Your task to perform on an android device: snooze an email in the gmail app Image 0: 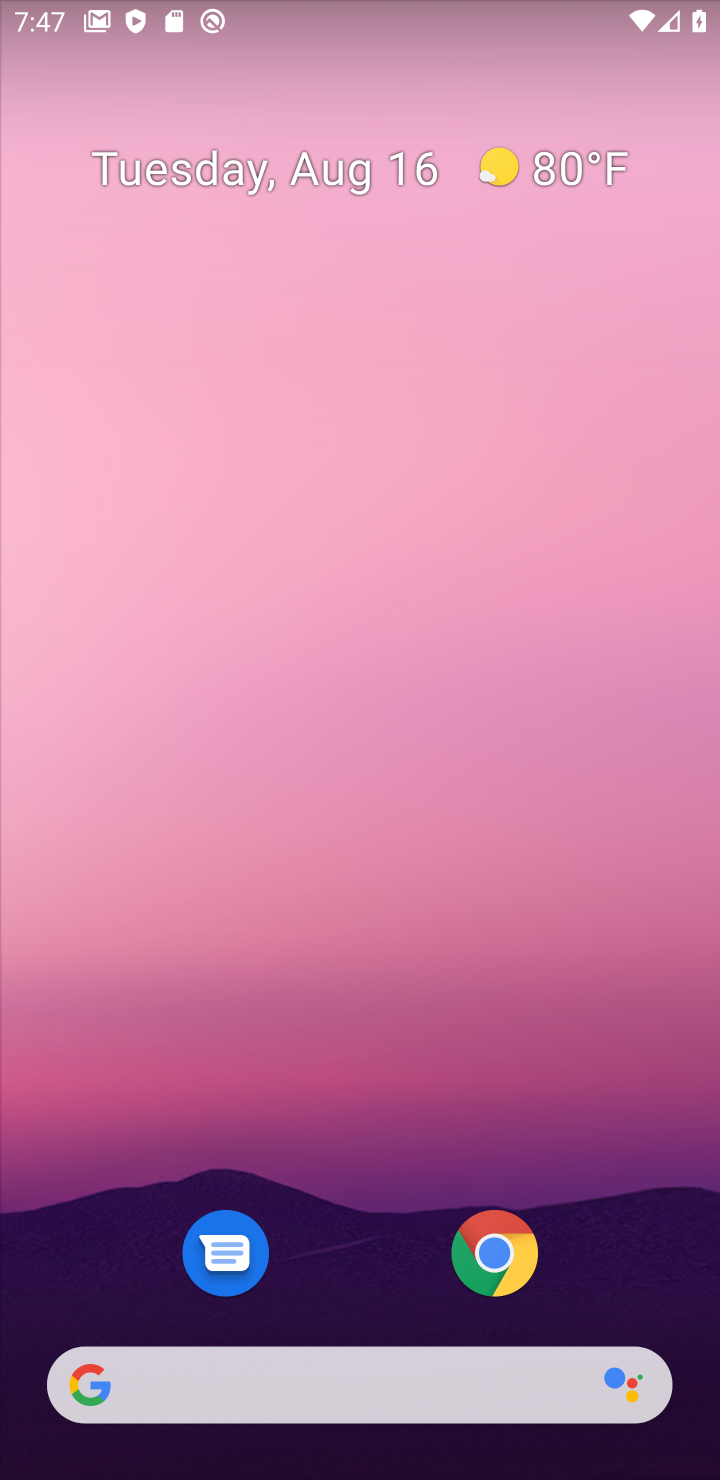
Step 0: drag from (300, 1378) to (478, 297)
Your task to perform on an android device: snooze an email in the gmail app Image 1: 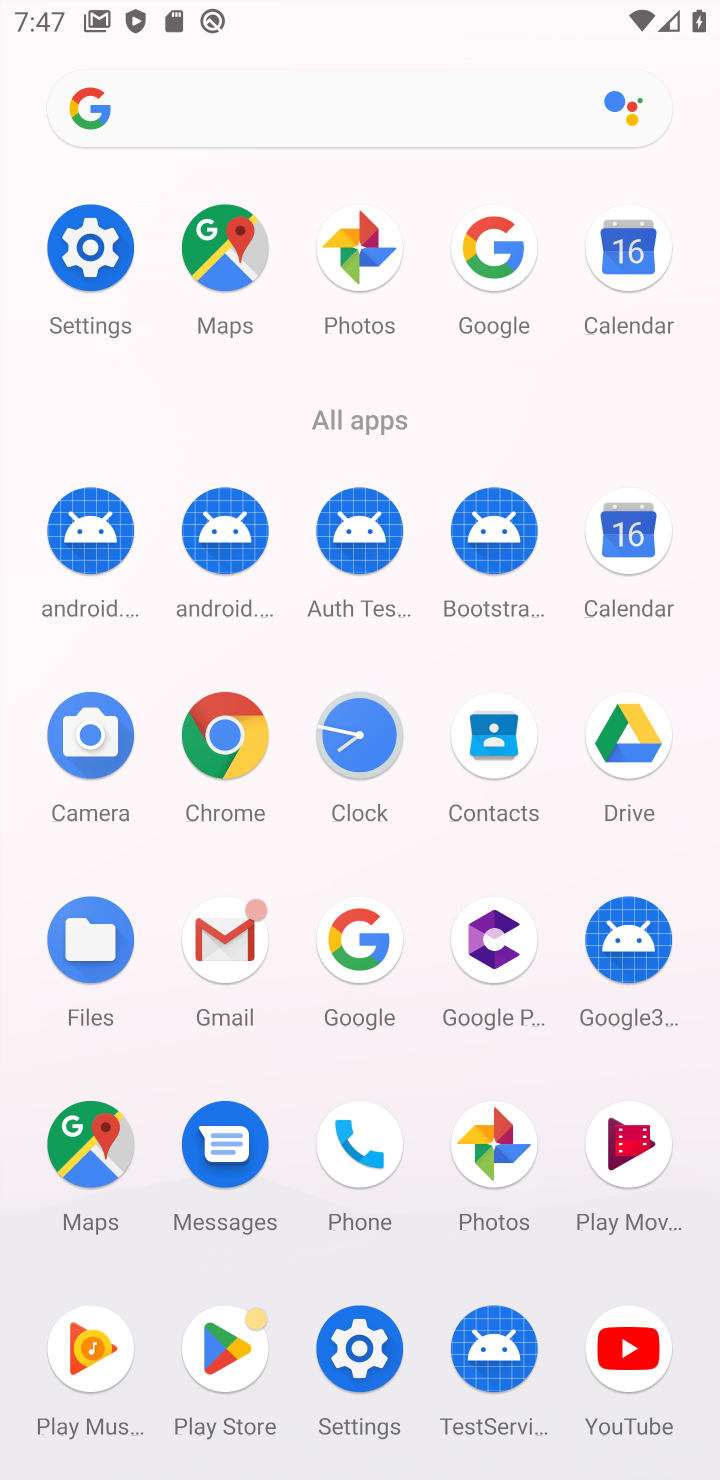
Step 1: click (223, 943)
Your task to perform on an android device: snooze an email in the gmail app Image 2: 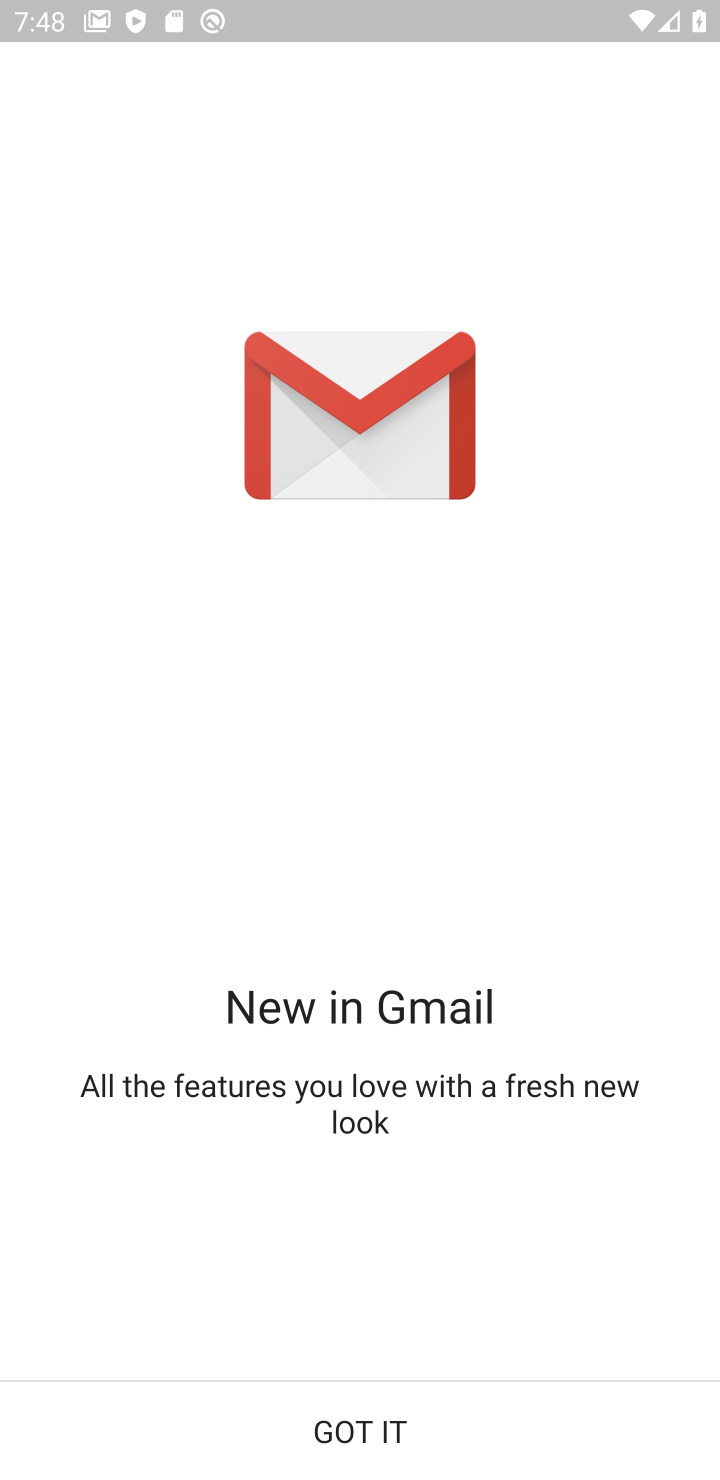
Step 2: click (375, 1431)
Your task to perform on an android device: snooze an email in the gmail app Image 3: 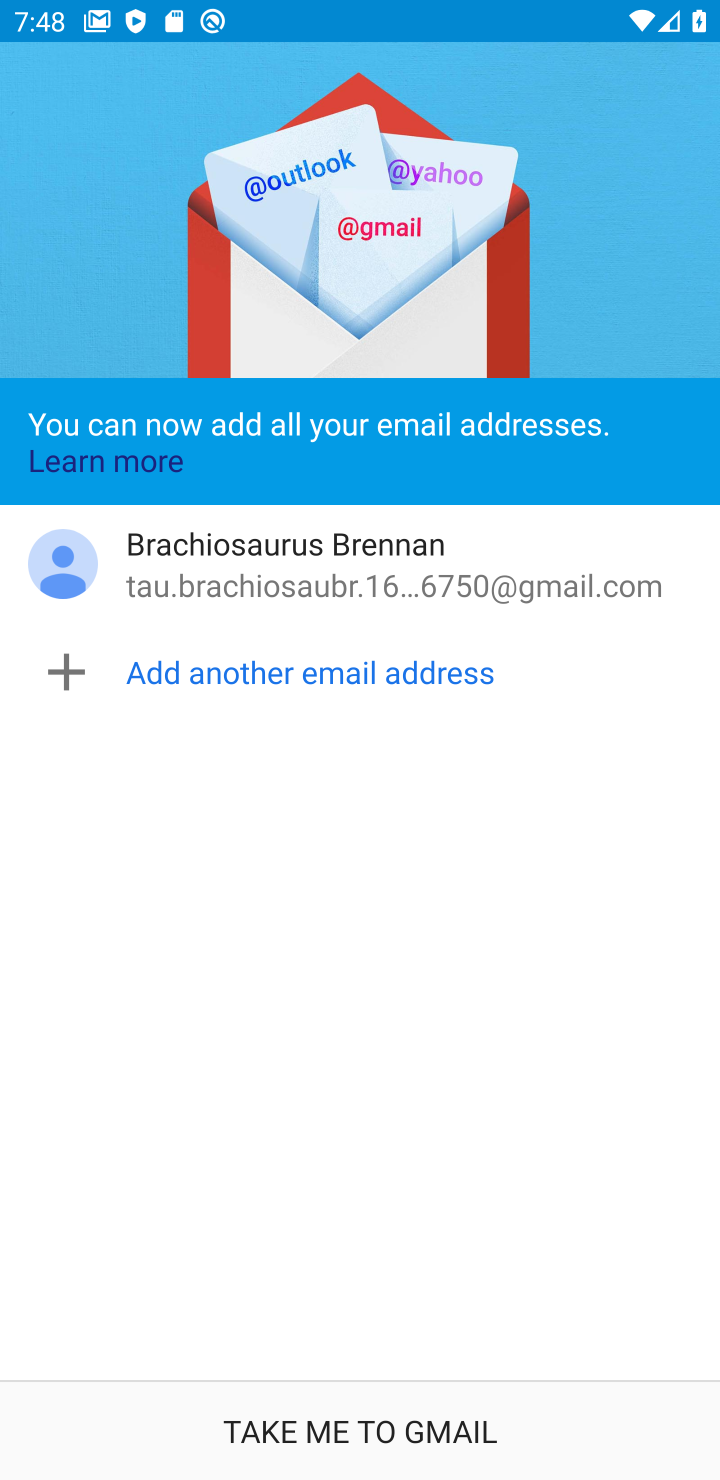
Step 3: click (389, 1424)
Your task to perform on an android device: snooze an email in the gmail app Image 4: 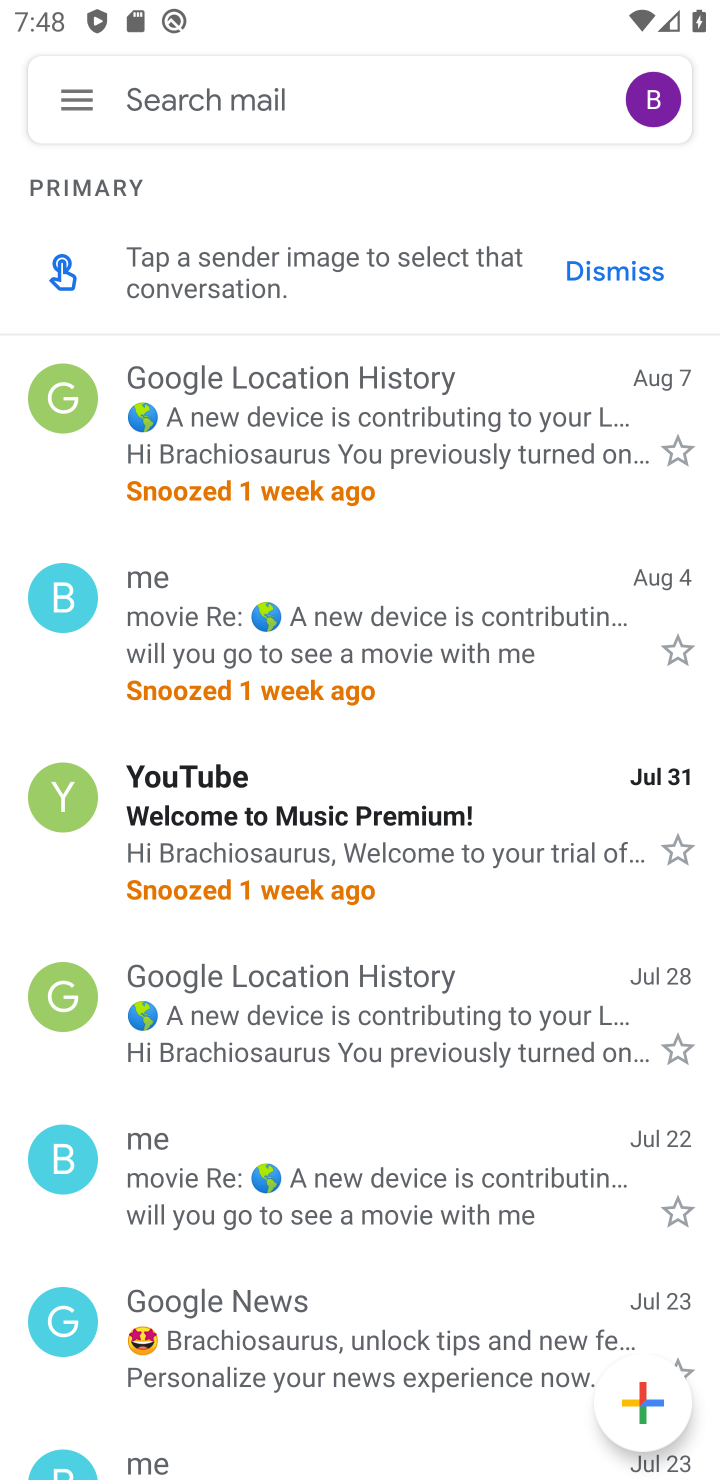
Step 4: click (394, 1053)
Your task to perform on an android device: snooze an email in the gmail app Image 5: 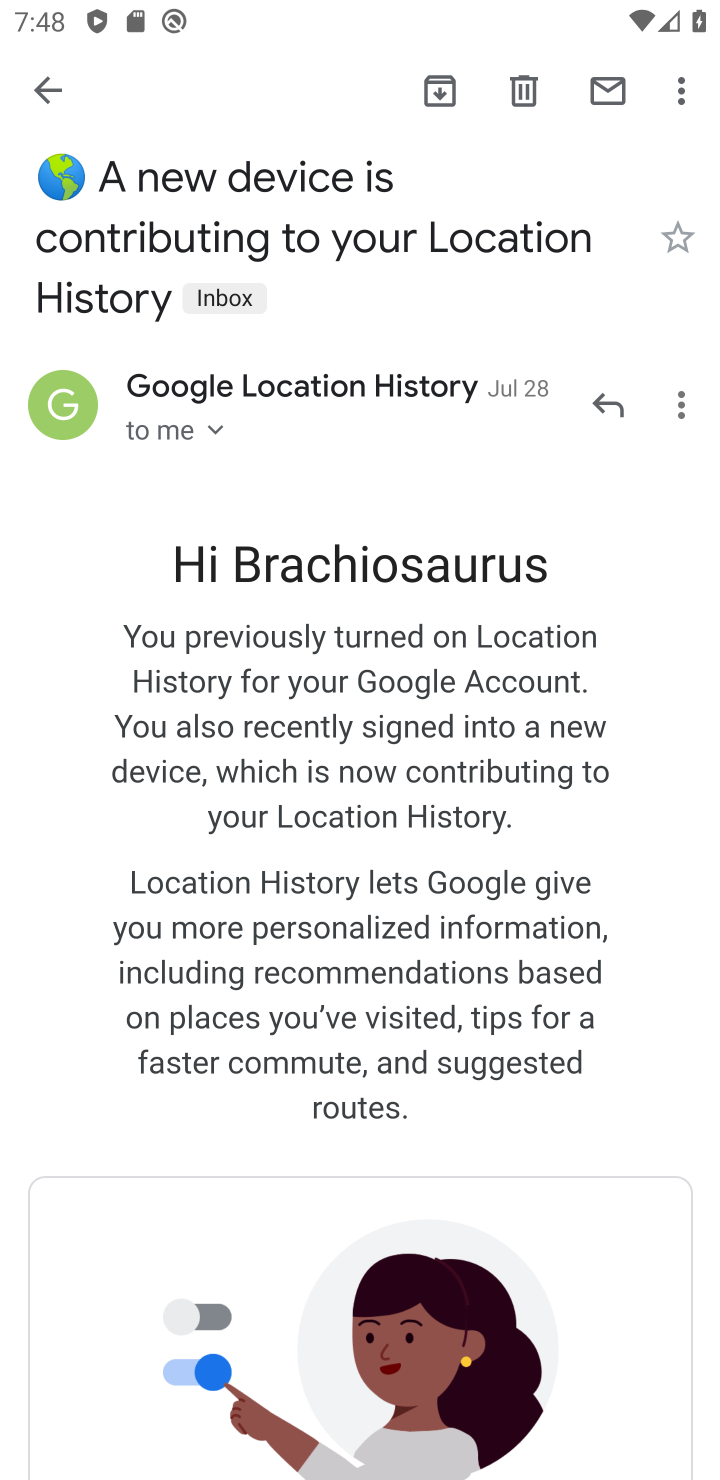
Step 5: click (684, 92)
Your task to perform on an android device: snooze an email in the gmail app Image 6: 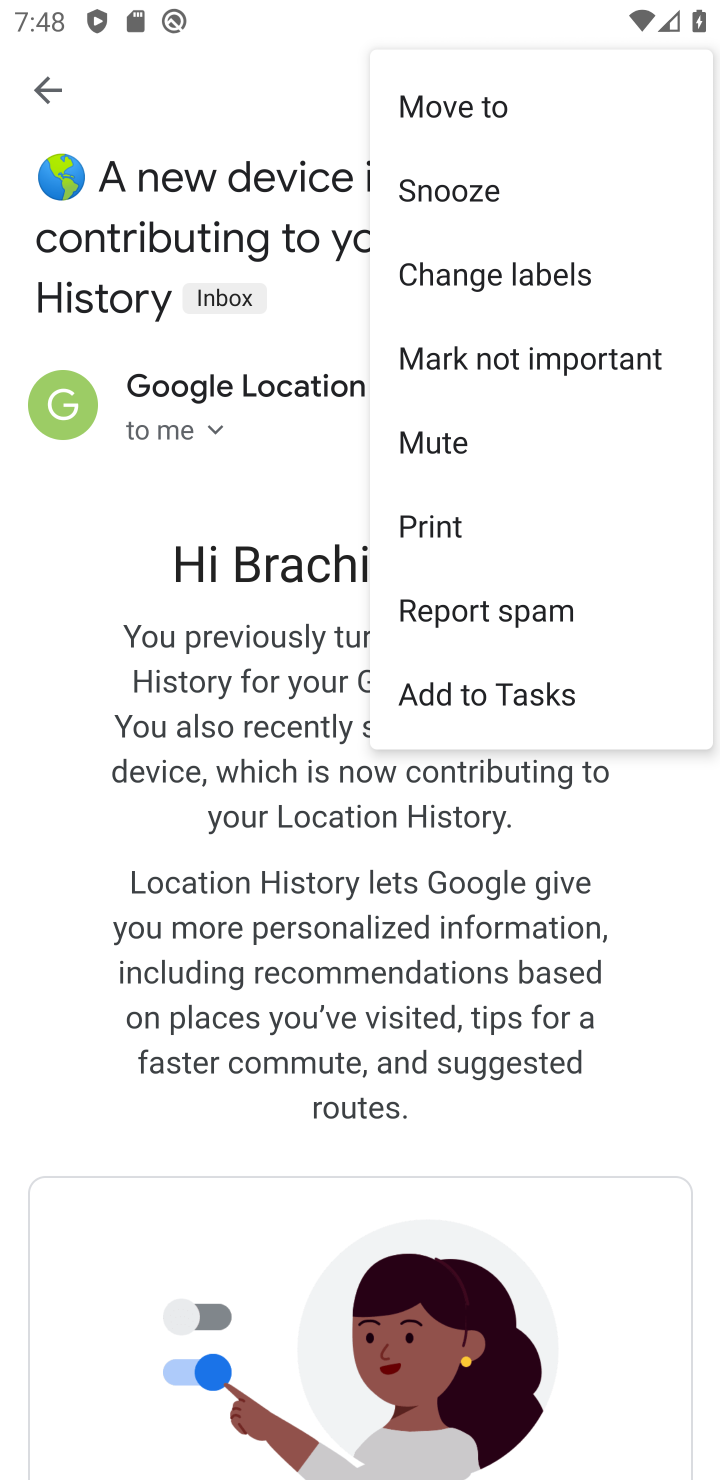
Step 6: click (466, 194)
Your task to perform on an android device: snooze an email in the gmail app Image 7: 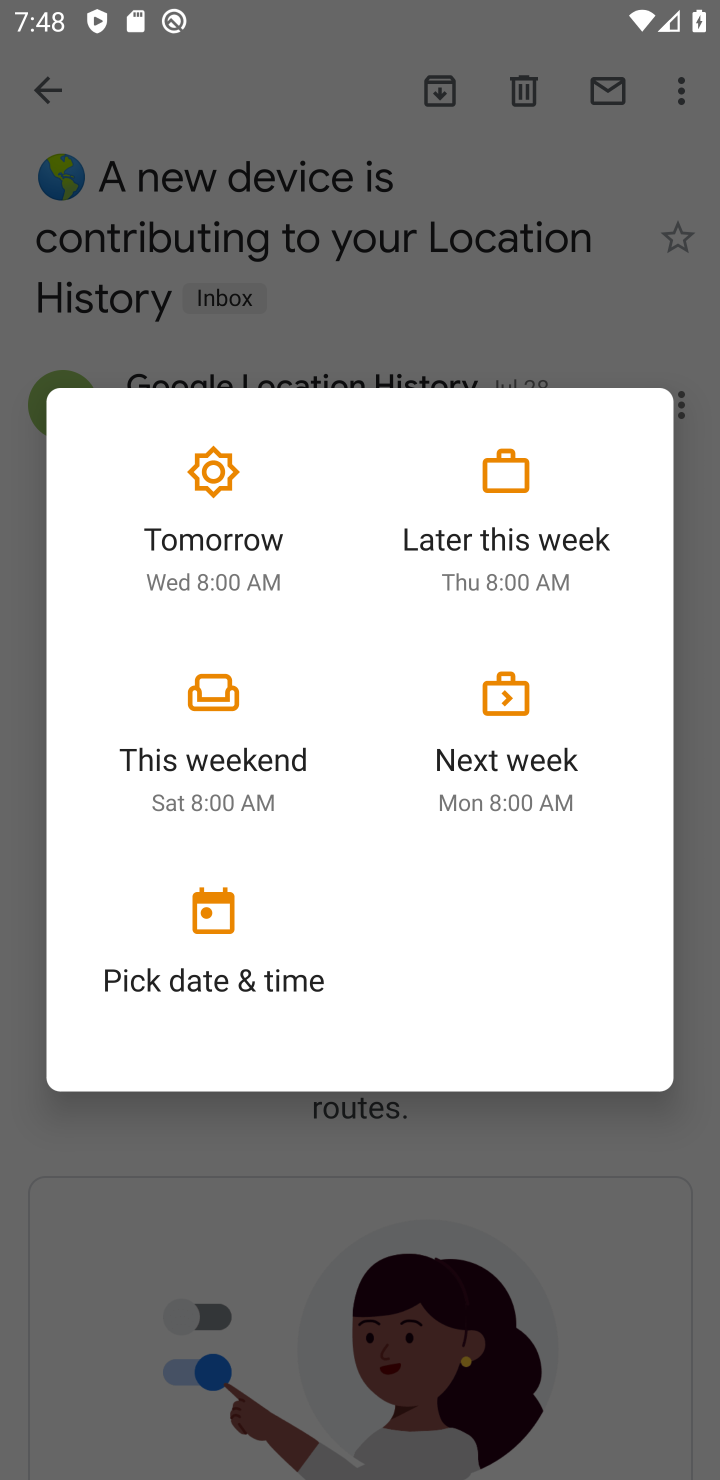
Step 7: click (518, 514)
Your task to perform on an android device: snooze an email in the gmail app Image 8: 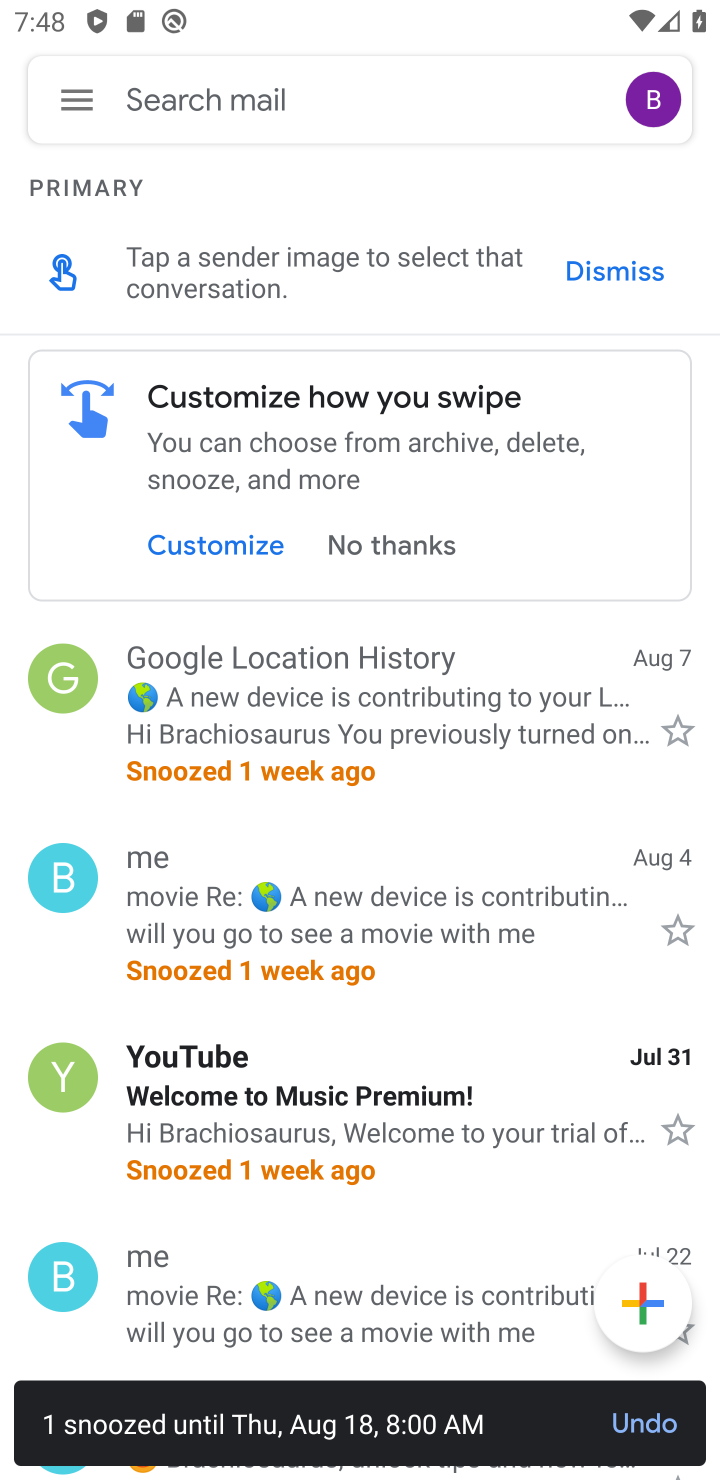
Step 8: task complete